Your task to perform on an android device: Open accessibility settings Image 0: 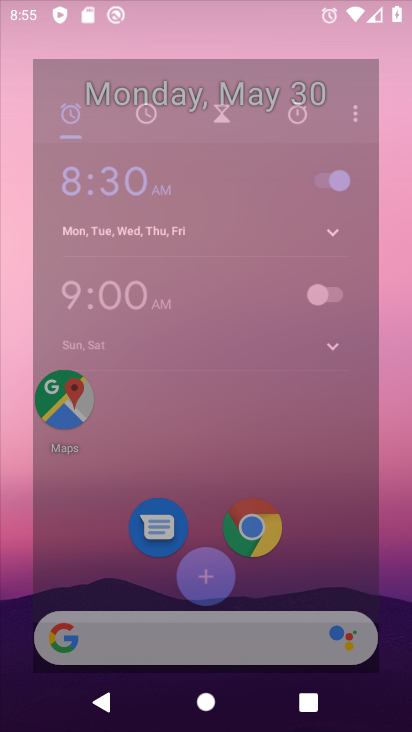
Step 0: drag from (266, 606) to (284, 46)
Your task to perform on an android device: Open accessibility settings Image 1: 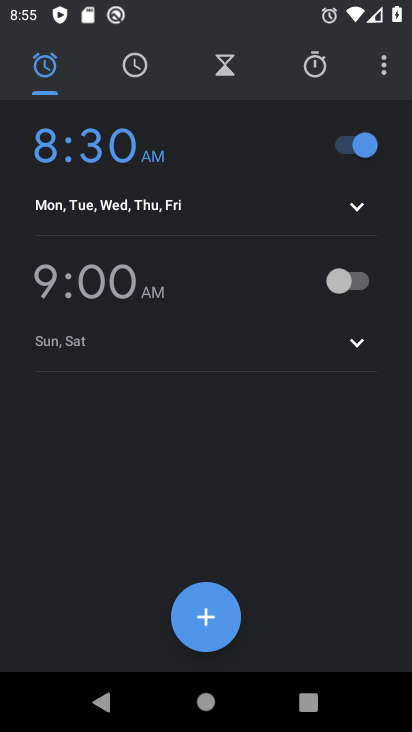
Step 1: press home button
Your task to perform on an android device: Open accessibility settings Image 2: 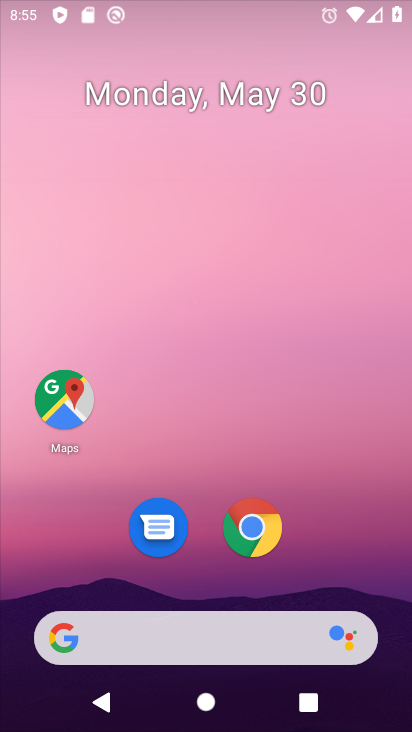
Step 2: drag from (258, 541) to (268, 33)
Your task to perform on an android device: Open accessibility settings Image 3: 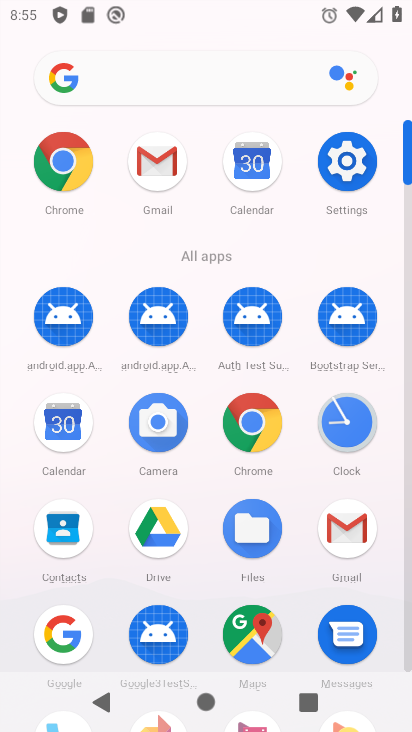
Step 3: click (347, 164)
Your task to perform on an android device: Open accessibility settings Image 4: 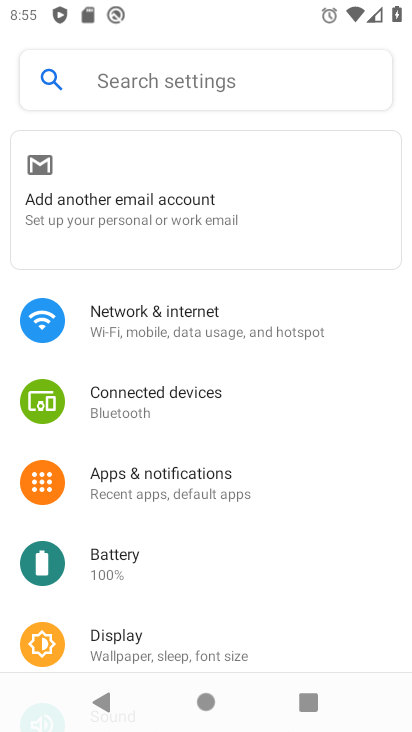
Step 4: drag from (156, 593) to (234, 1)
Your task to perform on an android device: Open accessibility settings Image 5: 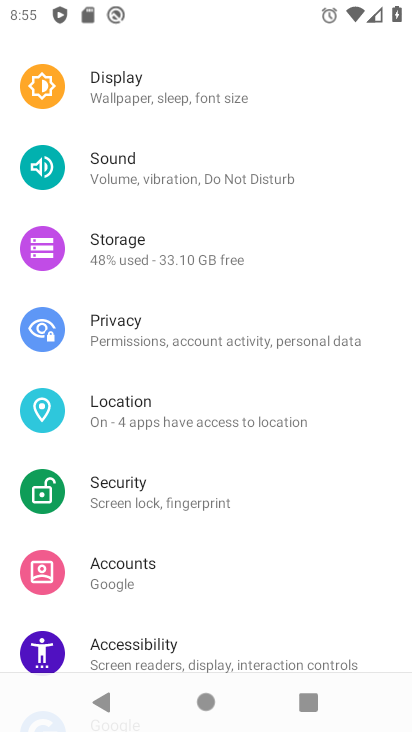
Step 5: drag from (281, 488) to (318, 92)
Your task to perform on an android device: Open accessibility settings Image 6: 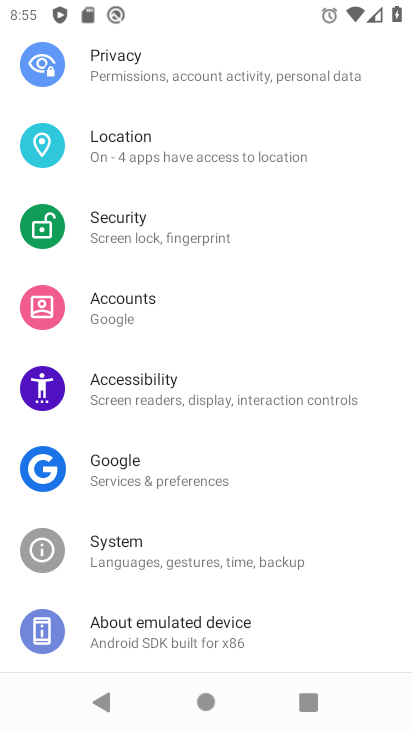
Step 6: click (212, 388)
Your task to perform on an android device: Open accessibility settings Image 7: 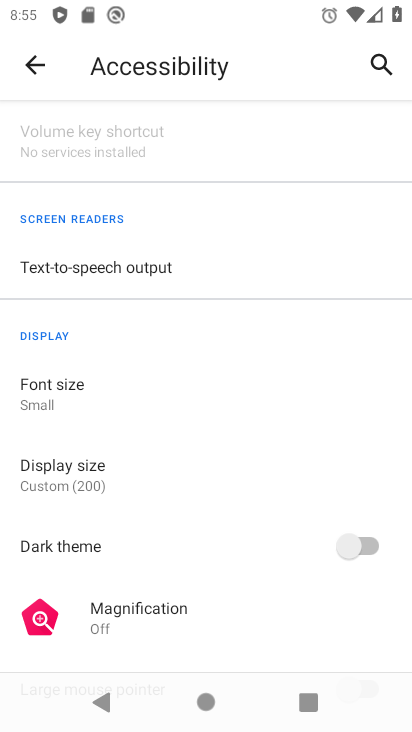
Step 7: task complete